Your task to perform on an android device: Open the Play Movies app and select the watchlist tab. Image 0: 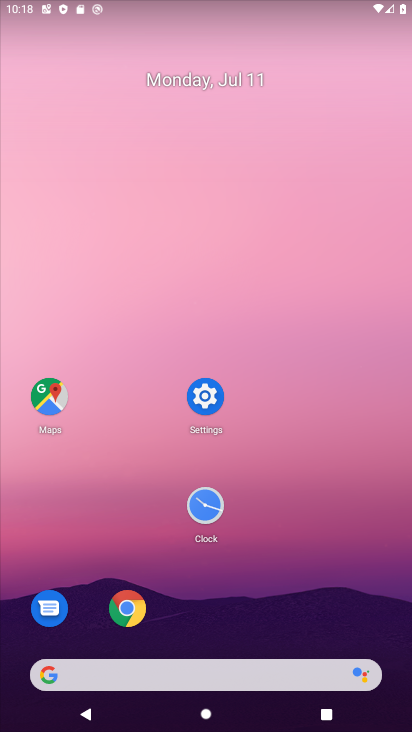
Step 0: drag from (403, 649) to (368, 228)
Your task to perform on an android device: Open the Play Movies app and select the watchlist tab. Image 1: 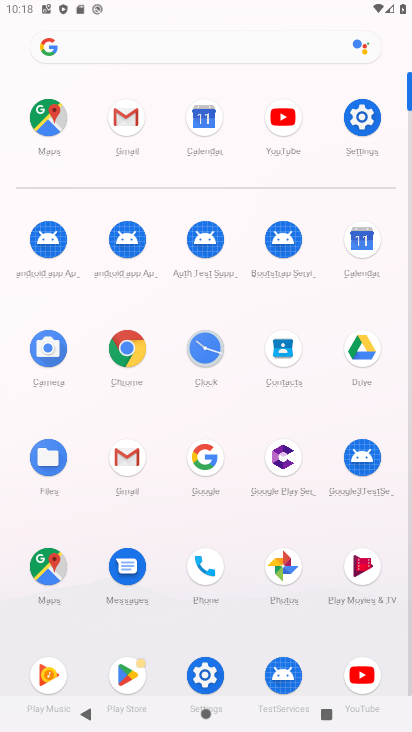
Step 1: click (354, 555)
Your task to perform on an android device: Open the Play Movies app and select the watchlist tab. Image 2: 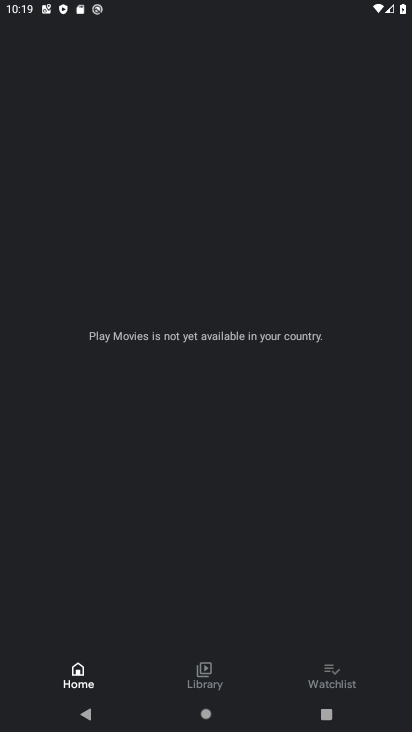
Step 2: click (312, 666)
Your task to perform on an android device: Open the Play Movies app and select the watchlist tab. Image 3: 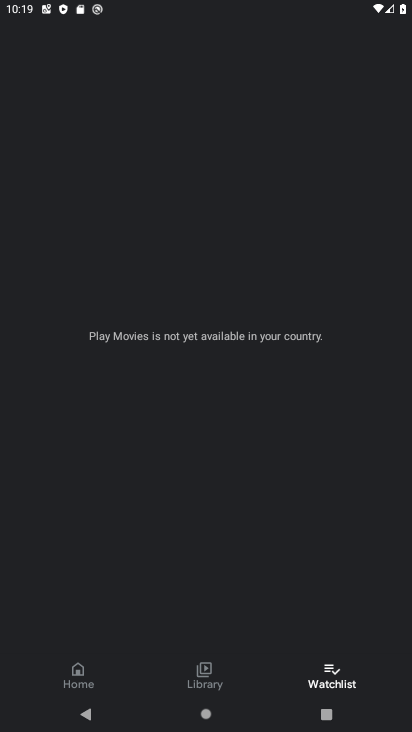
Step 3: task complete